Your task to perform on an android device: Go to internet settings Image 0: 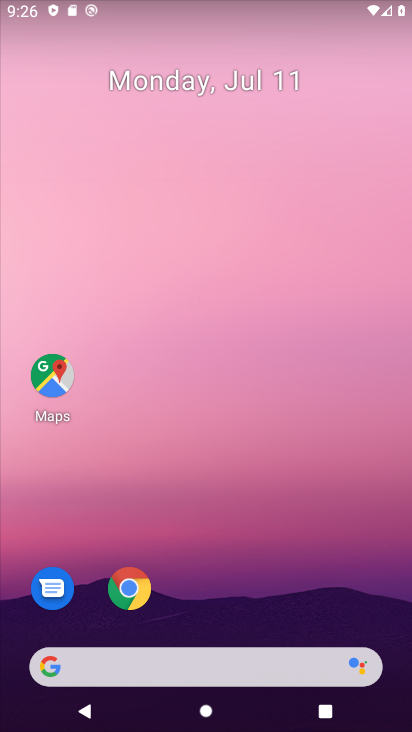
Step 0: drag from (286, 532) to (243, 46)
Your task to perform on an android device: Go to internet settings Image 1: 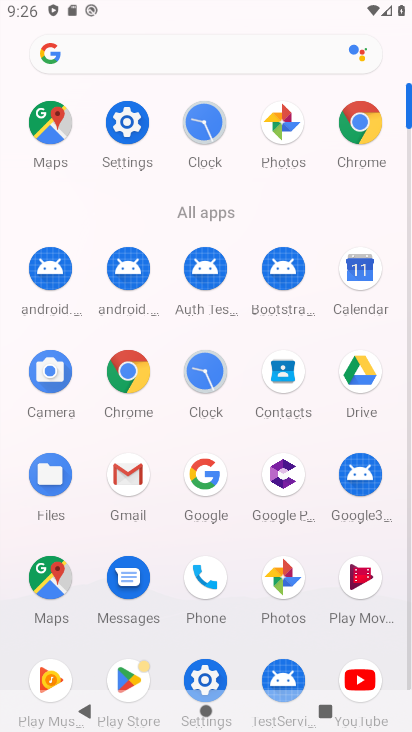
Step 1: click (126, 133)
Your task to perform on an android device: Go to internet settings Image 2: 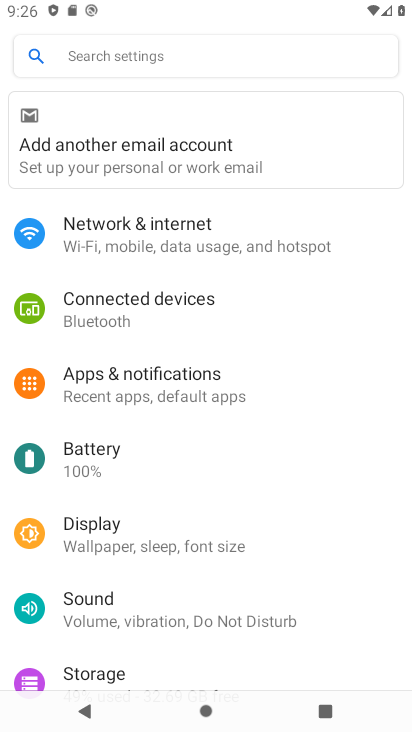
Step 2: click (156, 227)
Your task to perform on an android device: Go to internet settings Image 3: 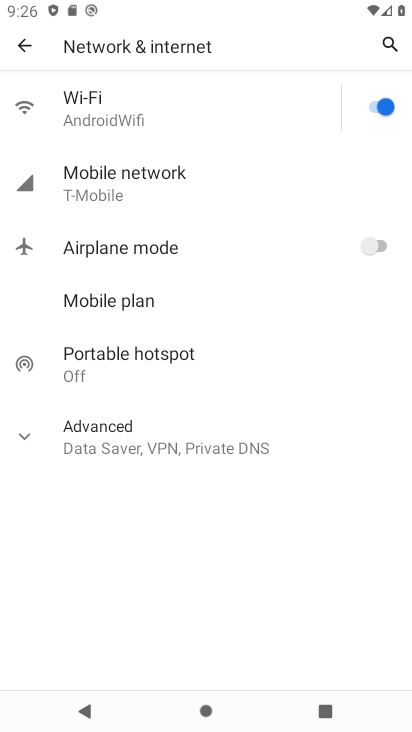
Step 3: click (180, 168)
Your task to perform on an android device: Go to internet settings Image 4: 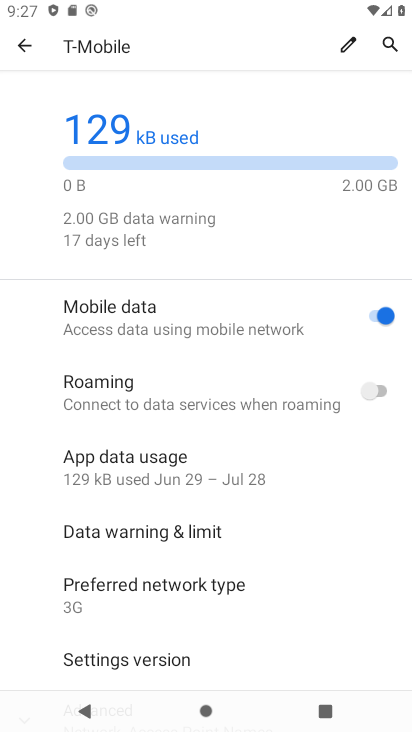
Step 4: task complete